Your task to perform on an android device: Search for vegetarian restaurants on Maps Image 0: 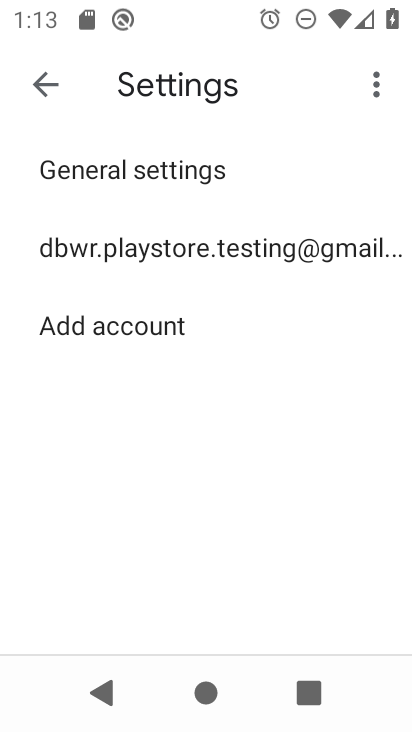
Step 0: press home button
Your task to perform on an android device: Search for vegetarian restaurants on Maps Image 1: 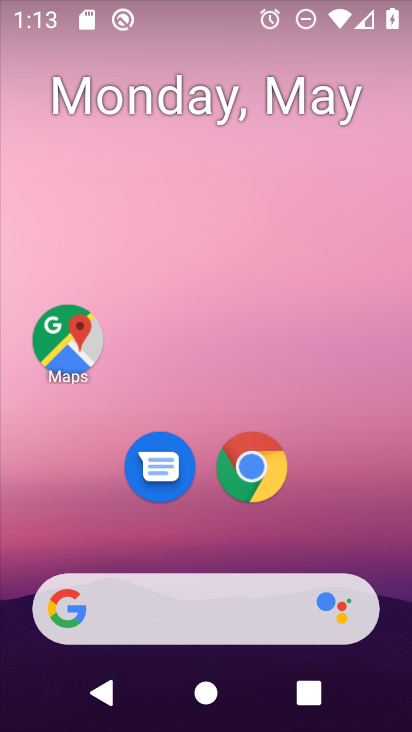
Step 1: click (72, 334)
Your task to perform on an android device: Search for vegetarian restaurants on Maps Image 2: 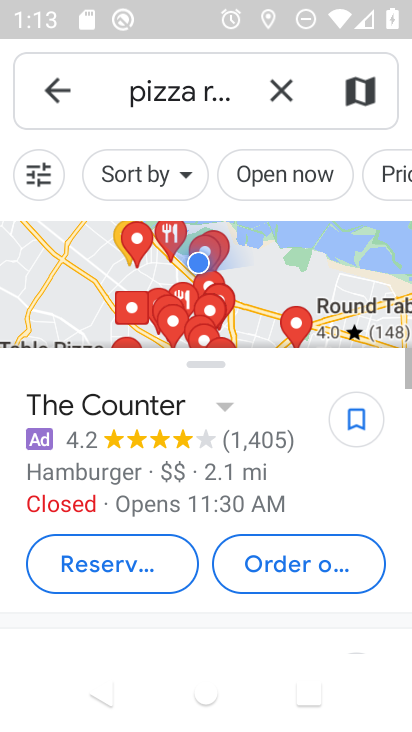
Step 2: click (274, 101)
Your task to perform on an android device: Search for vegetarian restaurants on Maps Image 3: 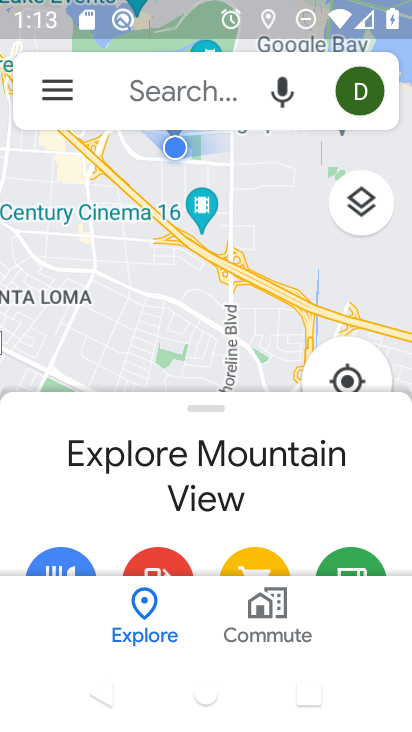
Step 3: click (141, 98)
Your task to perform on an android device: Search for vegetarian restaurants on Maps Image 4: 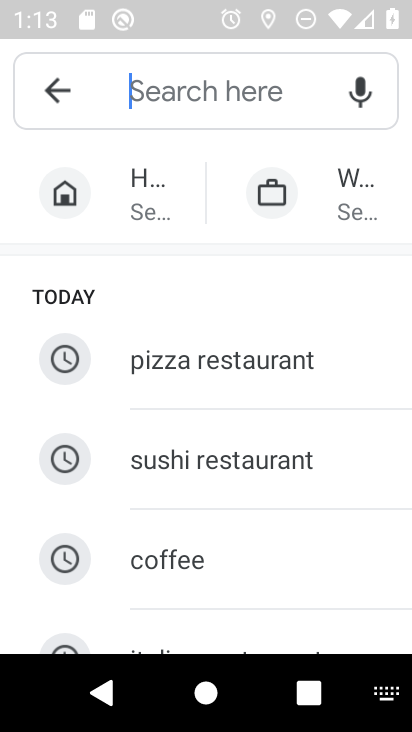
Step 4: type "vegetarian restaurant"
Your task to perform on an android device: Search for vegetarian restaurants on Maps Image 5: 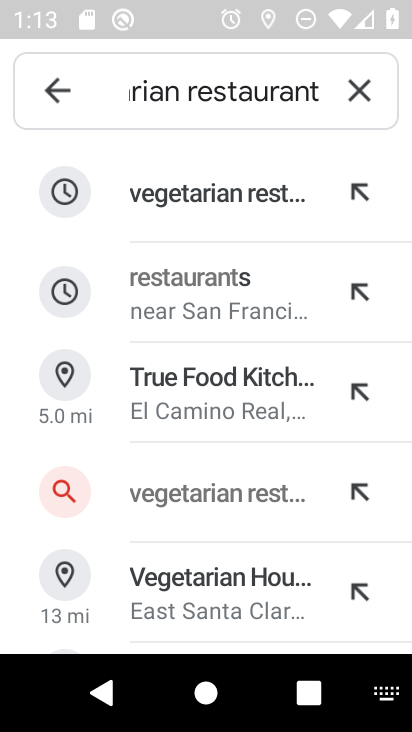
Step 5: click (184, 205)
Your task to perform on an android device: Search for vegetarian restaurants on Maps Image 6: 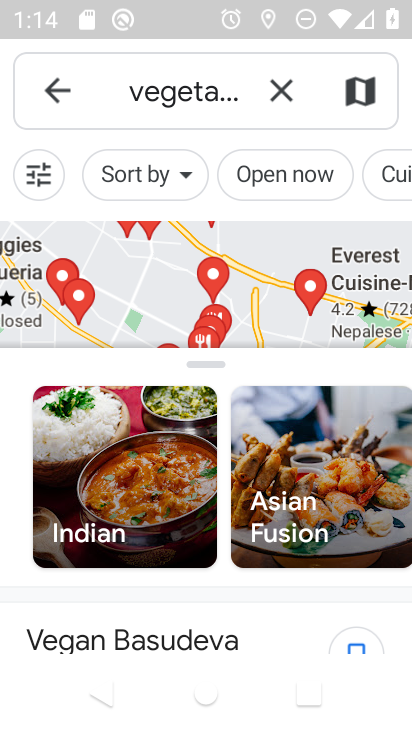
Step 6: task complete